Your task to perform on an android device: Do I have any events this weekend? Image 0: 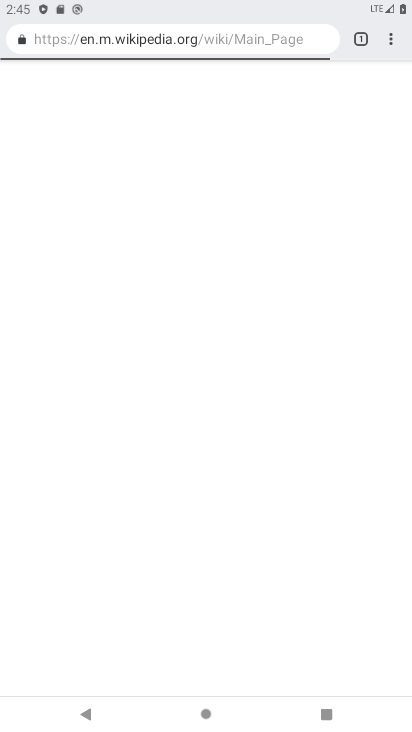
Step 0: press home button
Your task to perform on an android device: Do I have any events this weekend? Image 1: 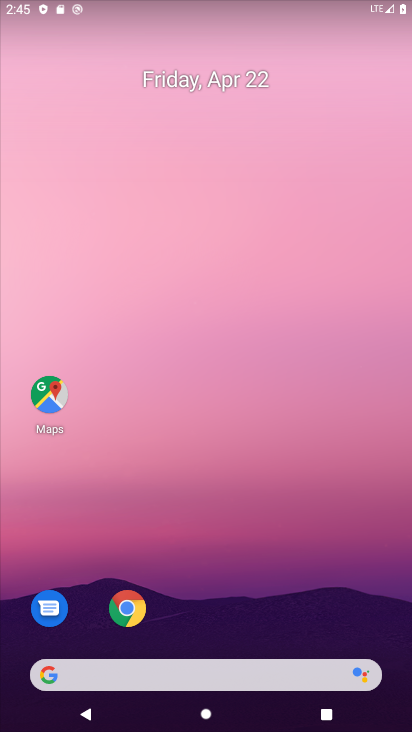
Step 1: drag from (259, 691) to (311, 275)
Your task to perform on an android device: Do I have any events this weekend? Image 2: 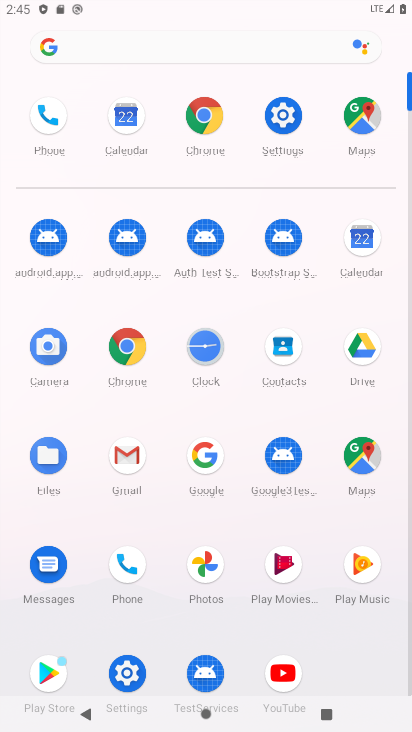
Step 2: click (364, 242)
Your task to perform on an android device: Do I have any events this weekend? Image 3: 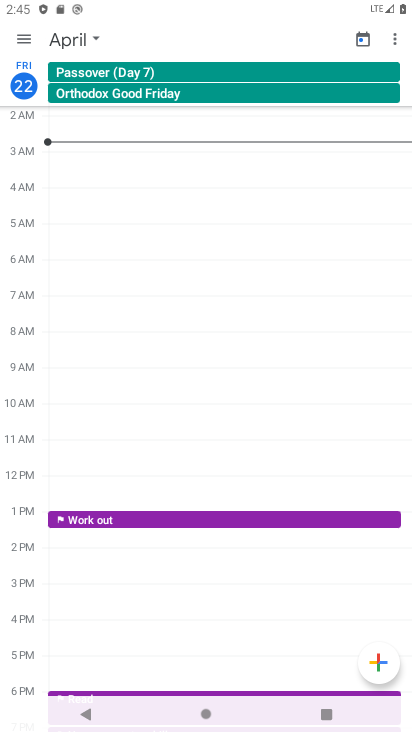
Step 3: click (38, 38)
Your task to perform on an android device: Do I have any events this weekend? Image 4: 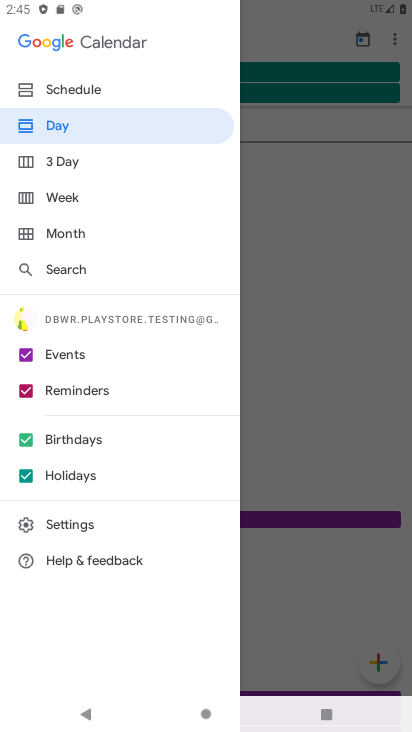
Step 4: click (85, 94)
Your task to perform on an android device: Do I have any events this weekend? Image 5: 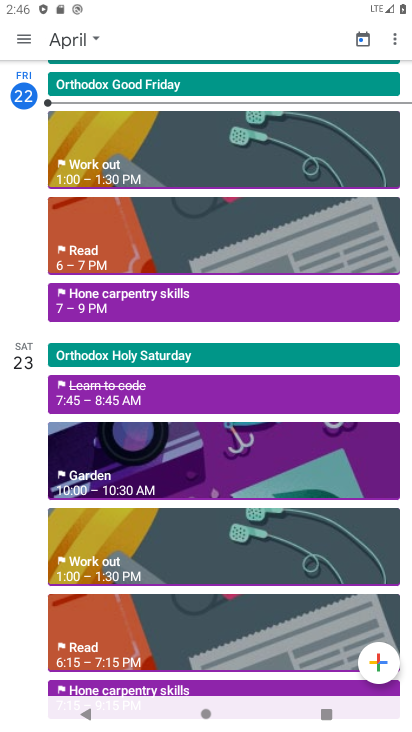
Step 5: task complete